Your task to perform on an android device: remove spam from my inbox in the gmail app Image 0: 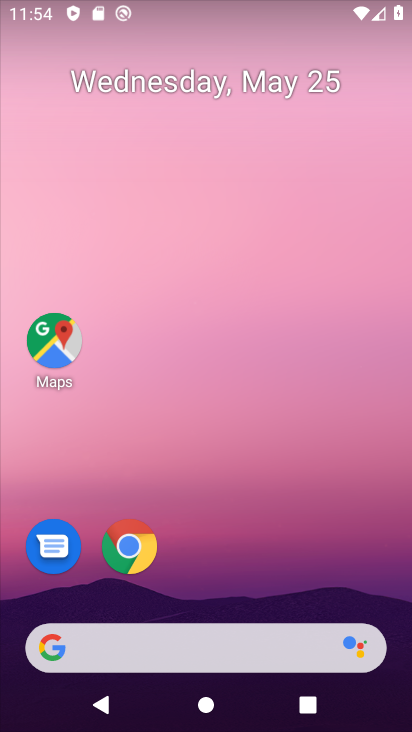
Step 0: drag from (252, 707) to (268, 227)
Your task to perform on an android device: remove spam from my inbox in the gmail app Image 1: 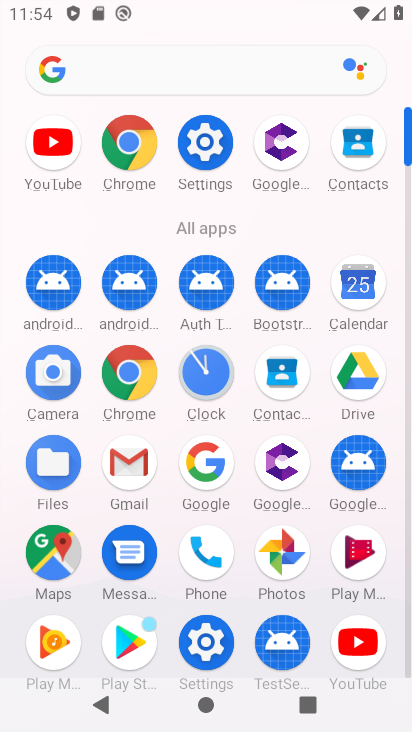
Step 1: click (116, 471)
Your task to perform on an android device: remove spam from my inbox in the gmail app Image 2: 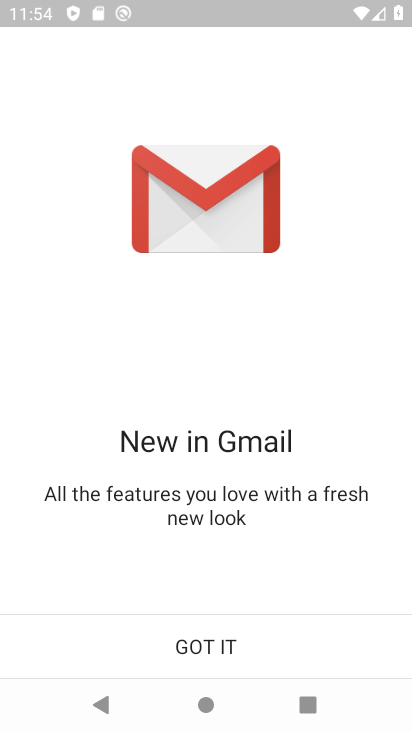
Step 2: click (241, 651)
Your task to perform on an android device: remove spam from my inbox in the gmail app Image 3: 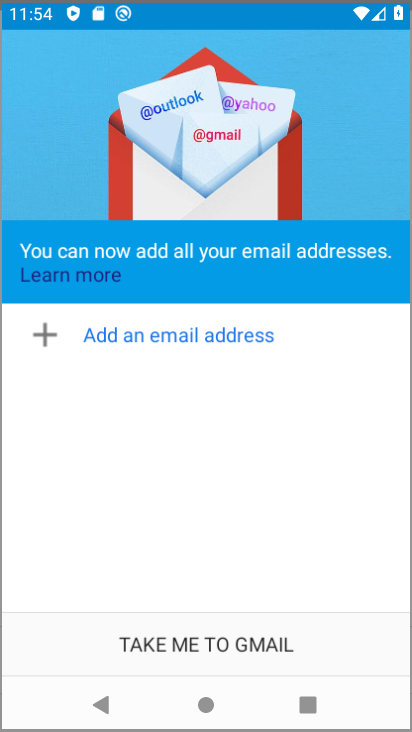
Step 3: click (241, 651)
Your task to perform on an android device: remove spam from my inbox in the gmail app Image 4: 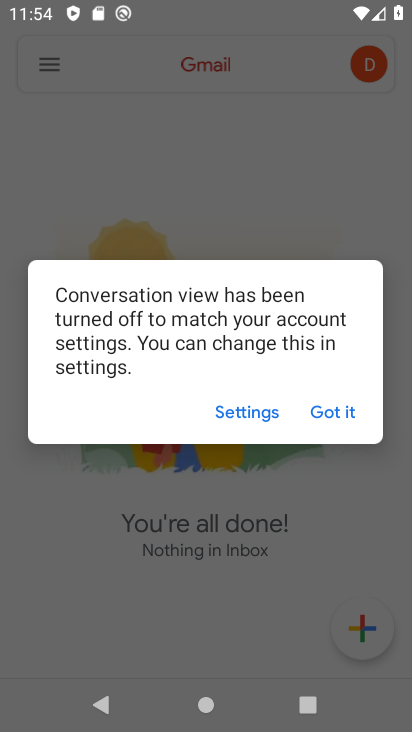
Step 4: click (352, 413)
Your task to perform on an android device: remove spam from my inbox in the gmail app Image 5: 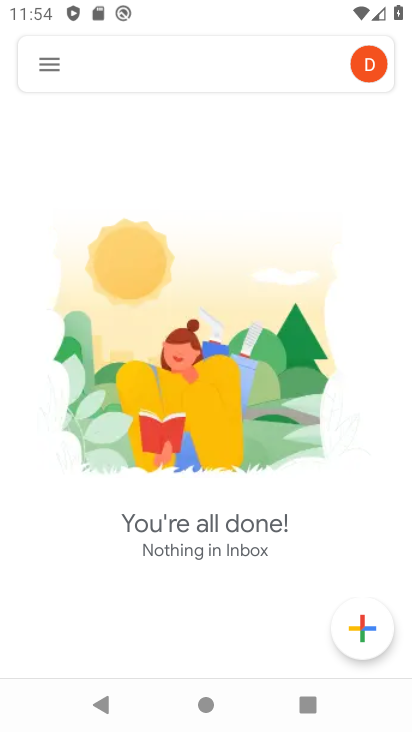
Step 5: click (37, 65)
Your task to perform on an android device: remove spam from my inbox in the gmail app Image 6: 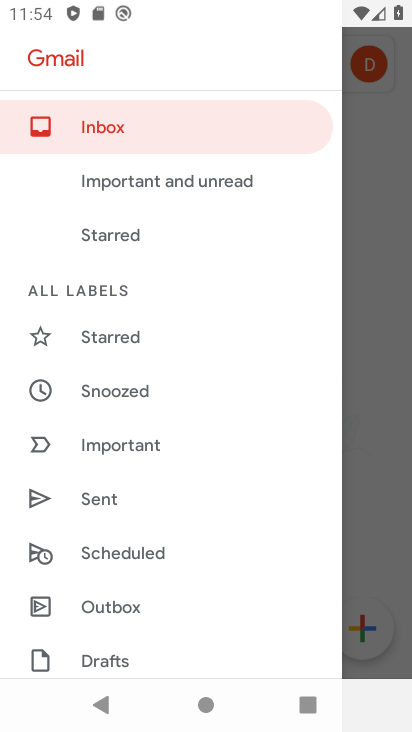
Step 6: drag from (159, 591) to (269, 106)
Your task to perform on an android device: remove spam from my inbox in the gmail app Image 7: 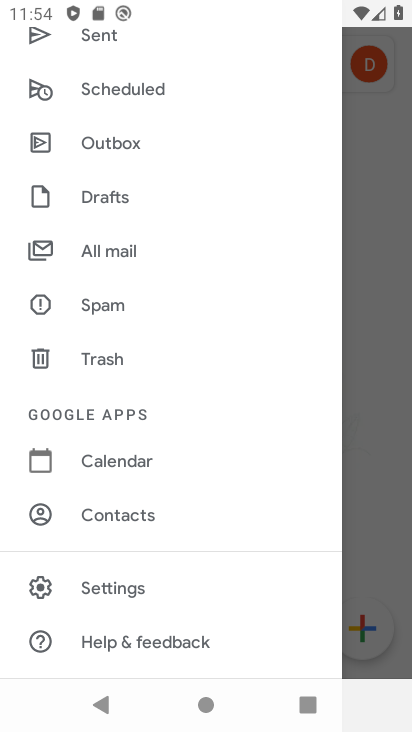
Step 7: click (72, 313)
Your task to perform on an android device: remove spam from my inbox in the gmail app Image 8: 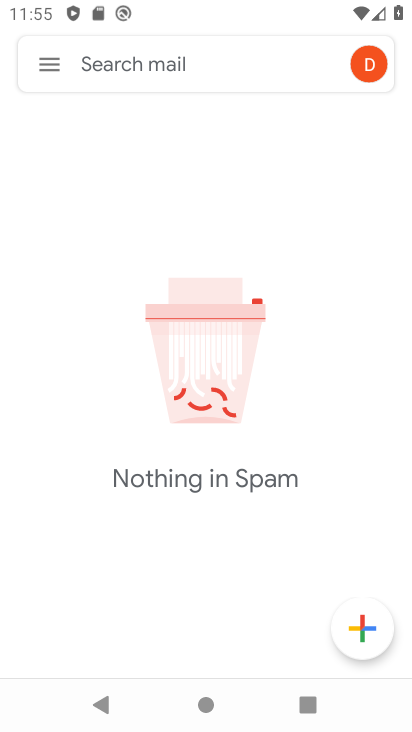
Step 8: task complete